Your task to perform on an android device: Open Google Chrome and open the bookmarks view Image 0: 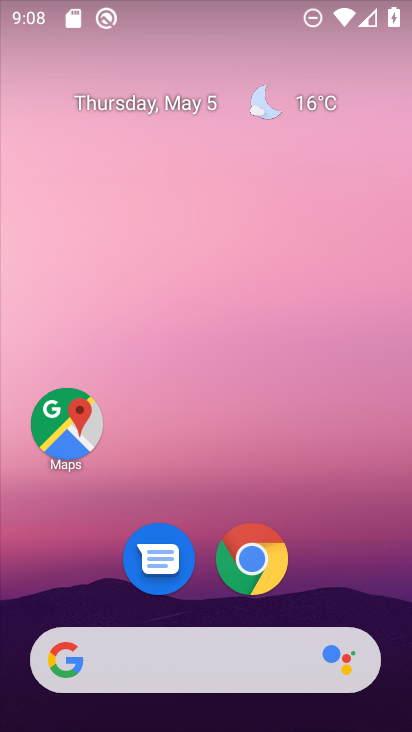
Step 0: click (253, 566)
Your task to perform on an android device: Open Google Chrome and open the bookmarks view Image 1: 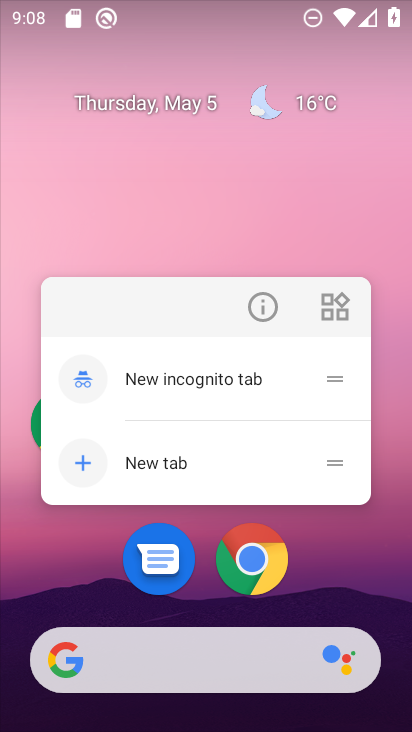
Step 1: click (244, 559)
Your task to perform on an android device: Open Google Chrome and open the bookmarks view Image 2: 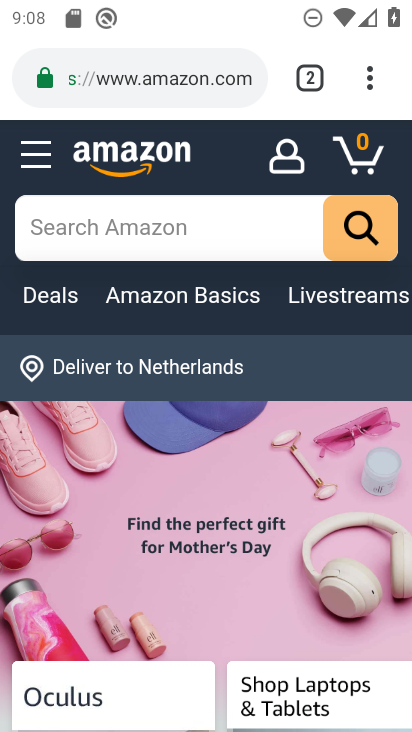
Step 2: click (371, 83)
Your task to perform on an android device: Open Google Chrome and open the bookmarks view Image 3: 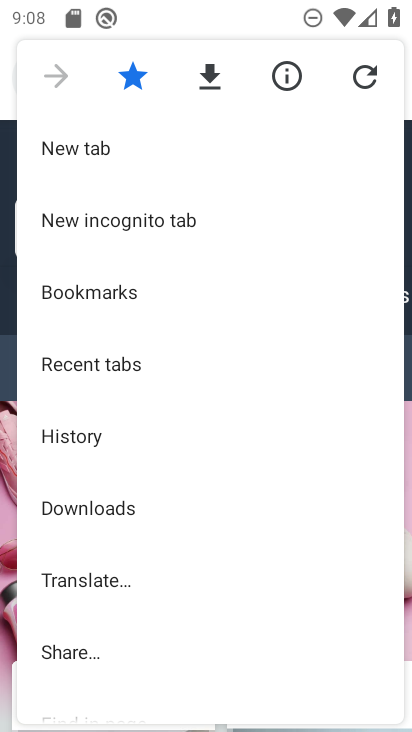
Step 3: click (89, 297)
Your task to perform on an android device: Open Google Chrome and open the bookmarks view Image 4: 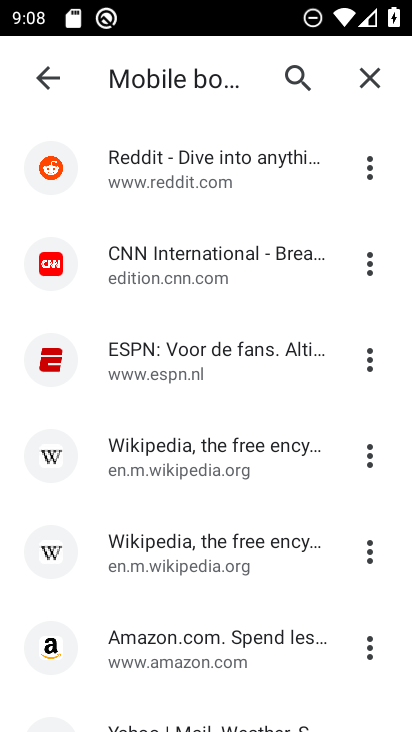
Step 4: task complete